Your task to perform on an android device: open chrome privacy settings Image 0: 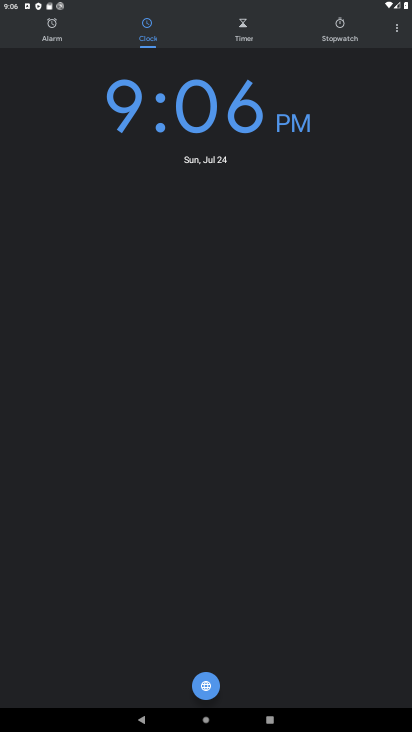
Step 0: press home button
Your task to perform on an android device: open chrome privacy settings Image 1: 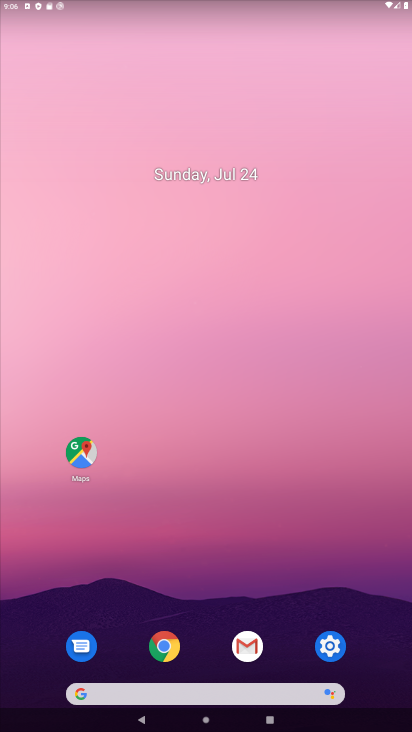
Step 1: click (174, 649)
Your task to perform on an android device: open chrome privacy settings Image 2: 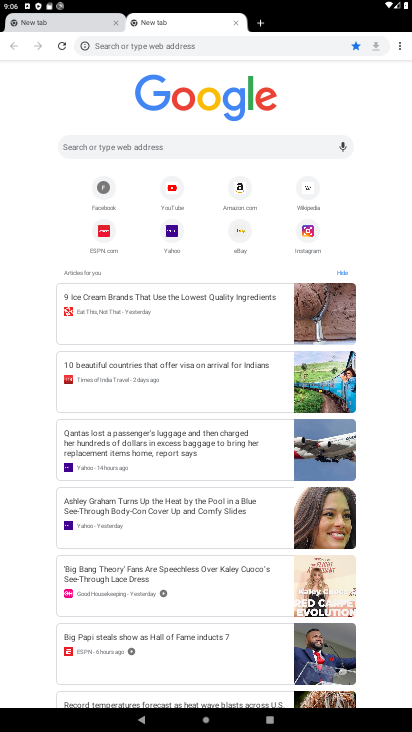
Step 2: click (394, 48)
Your task to perform on an android device: open chrome privacy settings Image 3: 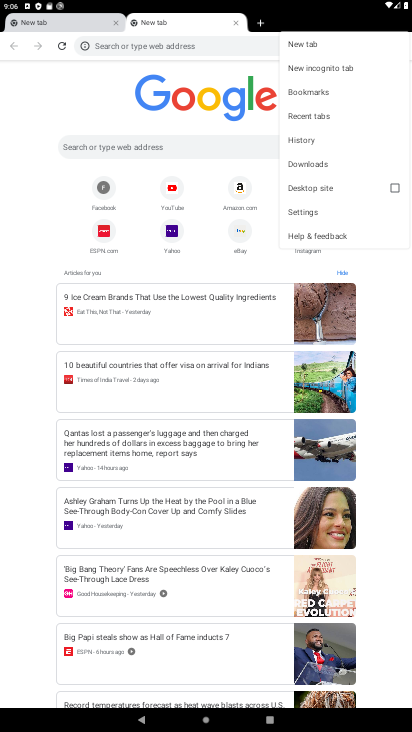
Step 3: click (310, 206)
Your task to perform on an android device: open chrome privacy settings Image 4: 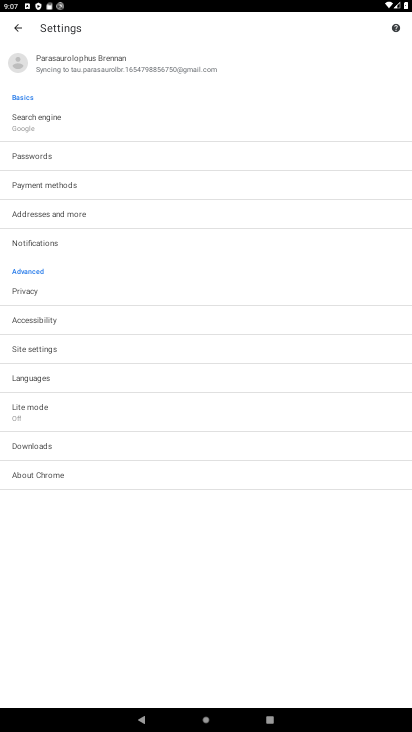
Step 4: click (55, 287)
Your task to perform on an android device: open chrome privacy settings Image 5: 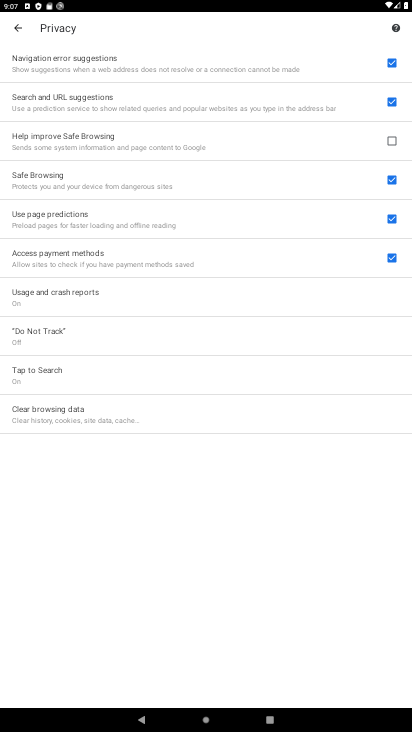
Step 5: task complete